Your task to perform on an android device: turn off location history Image 0: 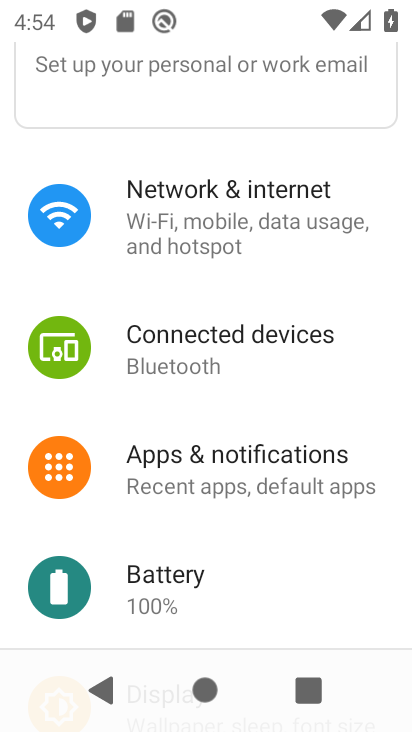
Step 0: drag from (210, 559) to (104, 102)
Your task to perform on an android device: turn off location history Image 1: 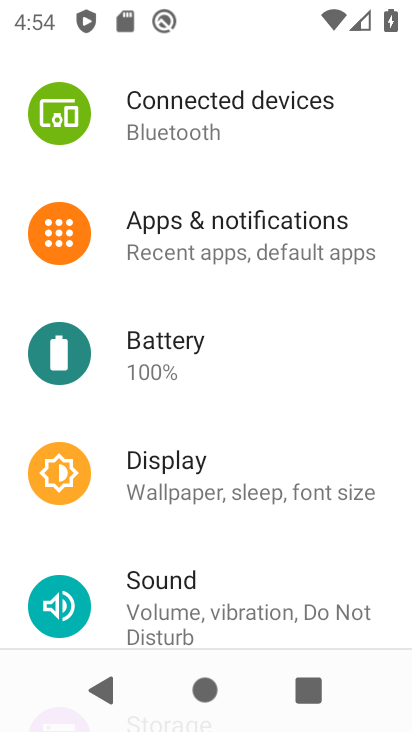
Step 1: drag from (241, 534) to (182, 217)
Your task to perform on an android device: turn off location history Image 2: 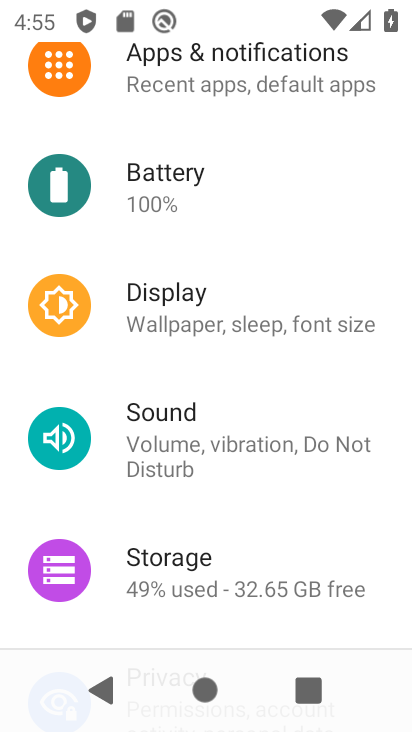
Step 2: drag from (261, 508) to (241, 150)
Your task to perform on an android device: turn off location history Image 3: 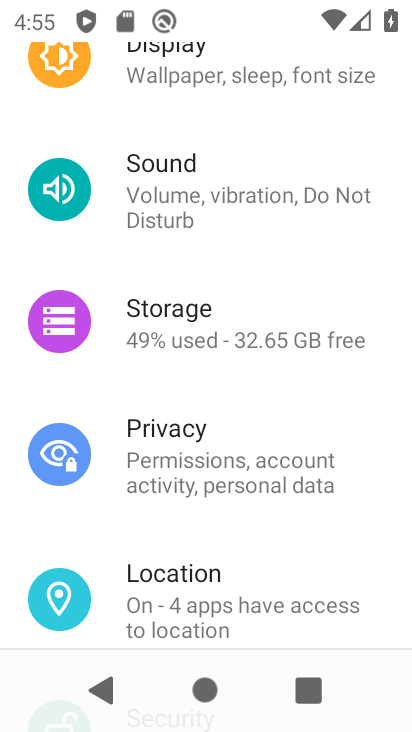
Step 3: drag from (270, 530) to (259, 267)
Your task to perform on an android device: turn off location history Image 4: 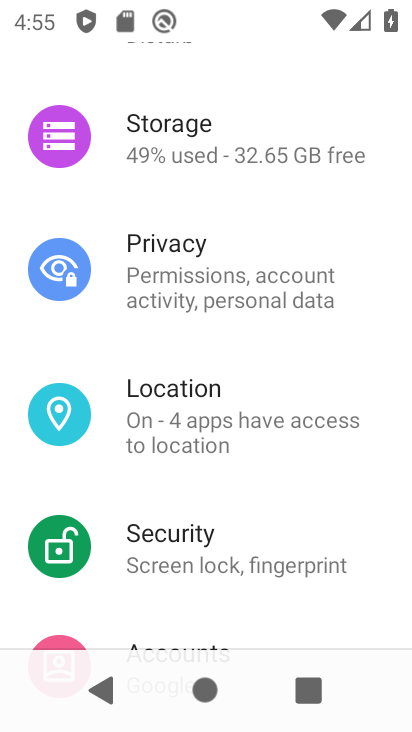
Step 4: click (193, 454)
Your task to perform on an android device: turn off location history Image 5: 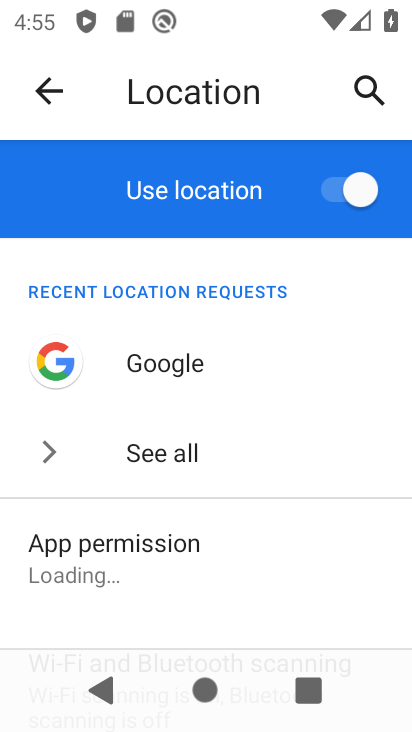
Step 5: drag from (269, 491) to (225, 214)
Your task to perform on an android device: turn off location history Image 6: 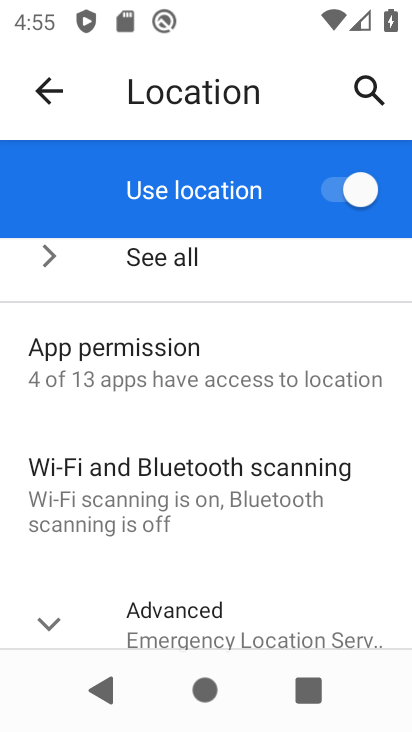
Step 6: drag from (247, 515) to (194, 232)
Your task to perform on an android device: turn off location history Image 7: 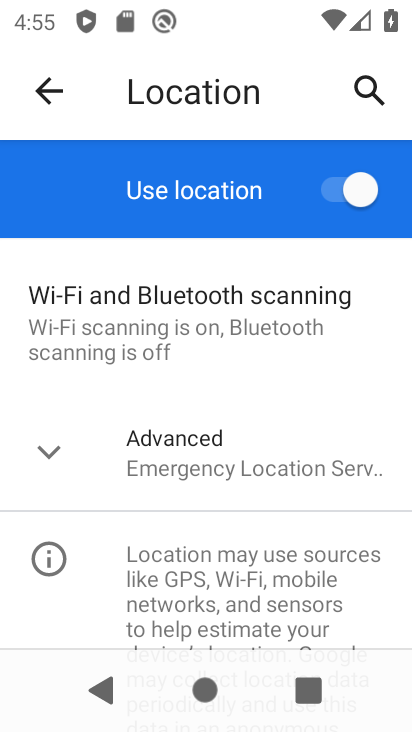
Step 7: click (59, 465)
Your task to perform on an android device: turn off location history Image 8: 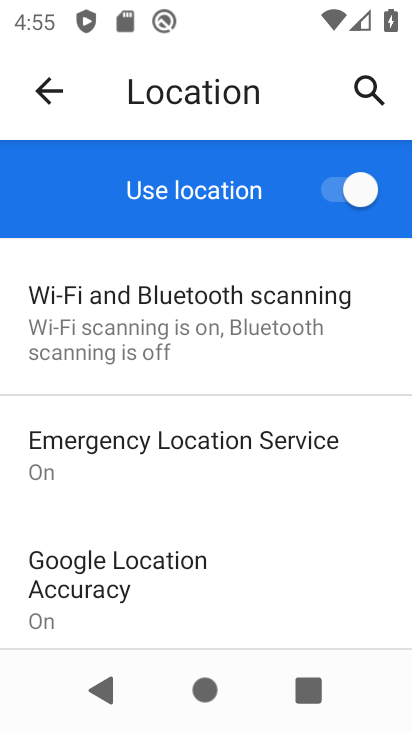
Step 8: drag from (217, 594) to (164, 356)
Your task to perform on an android device: turn off location history Image 9: 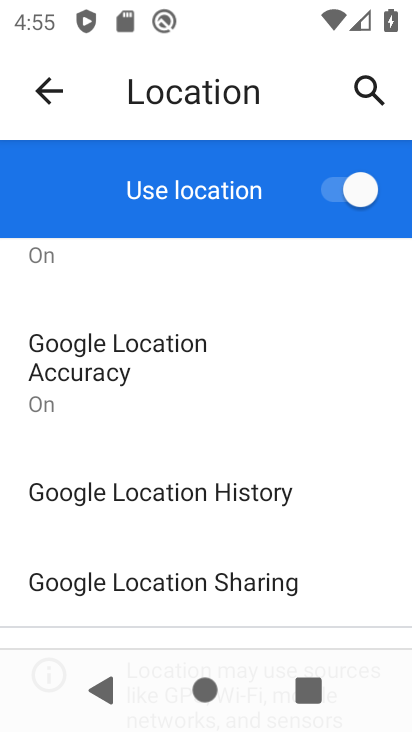
Step 9: drag from (201, 540) to (174, 322)
Your task to perform on an android device: turn off location history Image 10: 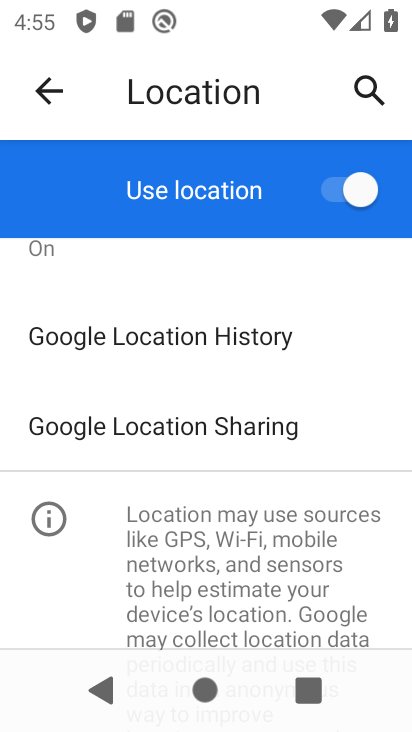
Step 10: click (187, 341)
Your task to perform on an android device: turn off location history Image 11: 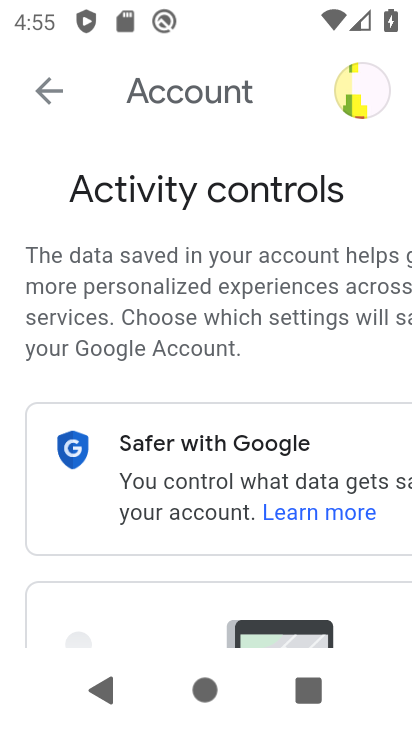
Step 11: drag from (343, 488) to (299, 209)
Your task to perform on an android device: turn off location history Image 12: 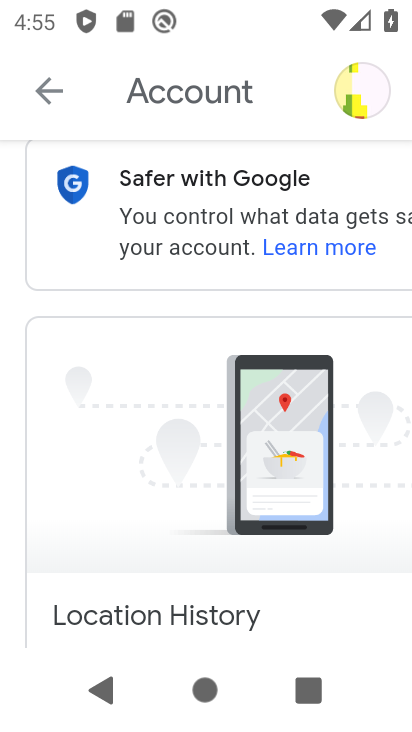
Step 12: drag from (341, 455) to (268, 196)
Your task to perform on an android device: turn off location history Image 13: 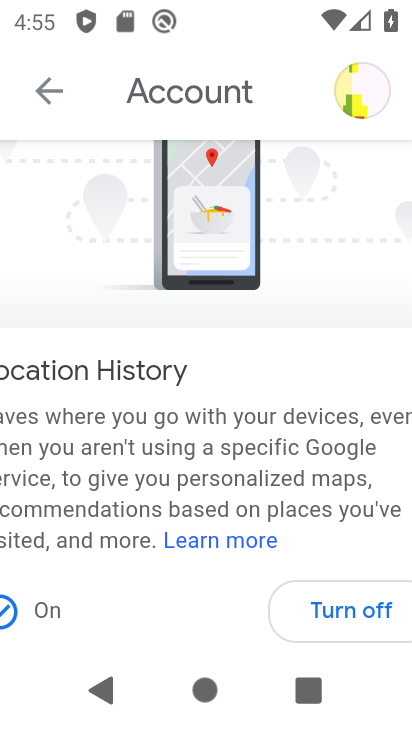
Step 13: click (333, 603)
Your task to perform on an android device: turn off location history Image 14: 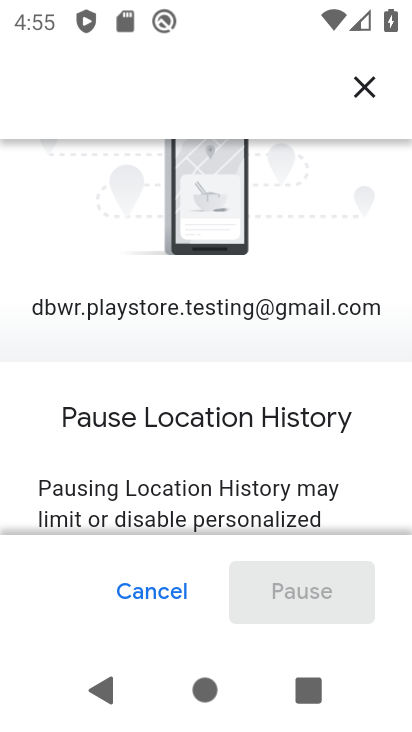
Step 14: drag from (296, 496) to (249, 203)
Your task to perform on an android device: turn off location history Image 15: 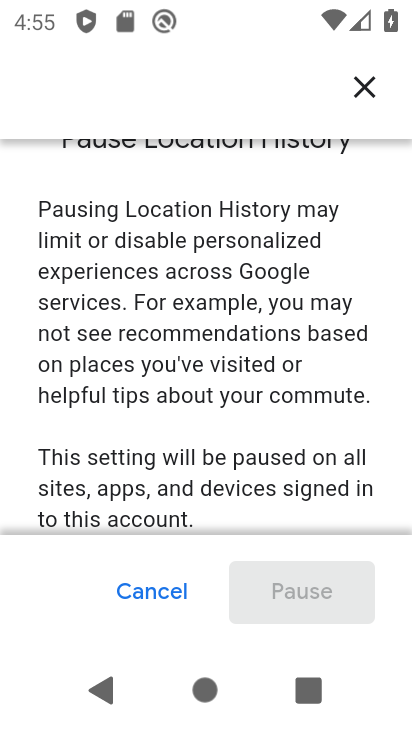
Step 15: drag from (283, 444) to (253, 114)
Your task to perform on an android device: turn off location history Image 16: 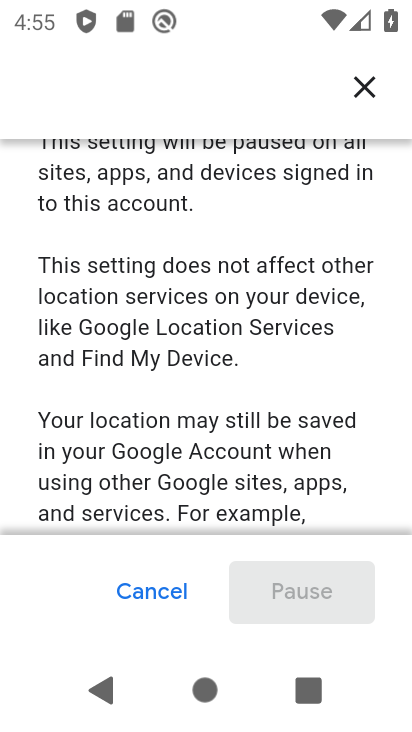
Step 16: drag from (286, 424) to (285, 143)
Your task to perform on an android device: turn off location history Image 17: 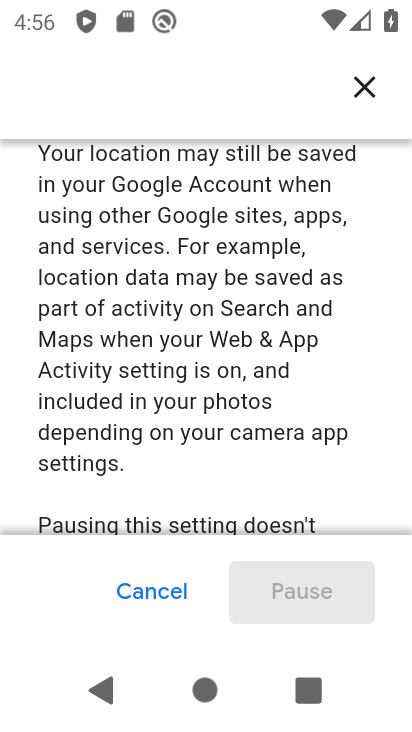
Step 17: drag from (271, 405) to (251, 105)
Your task to perform on an android device: turn off location history Image 18: 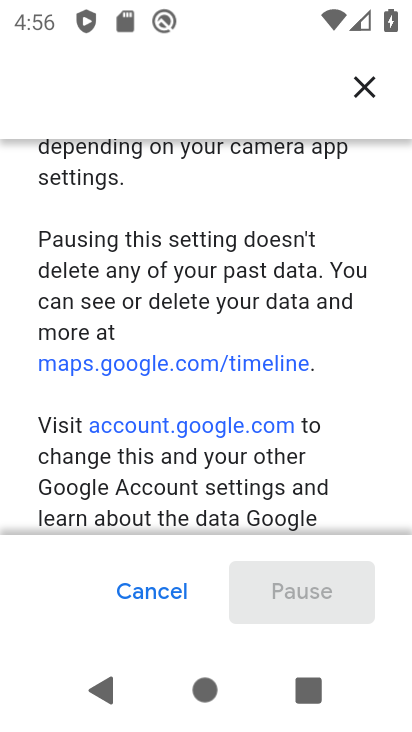
Step 18: drag from (246, 423) to (216, 202)
Your task to perform on an android device: turn off location history Image 19: 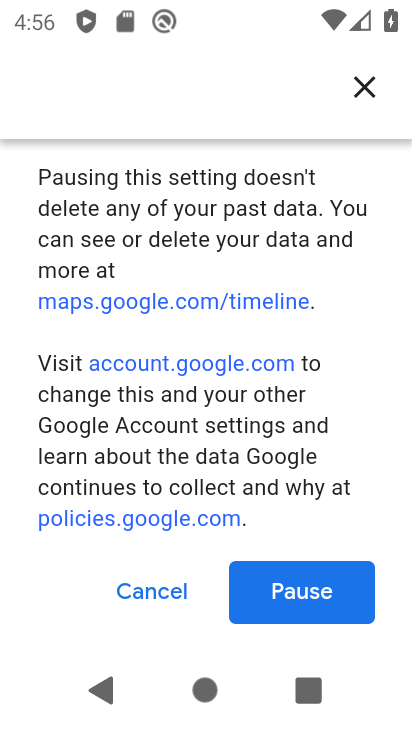
Step 19: click (293, 600)
Your task to perform on an android device: turn off location history Image 20: 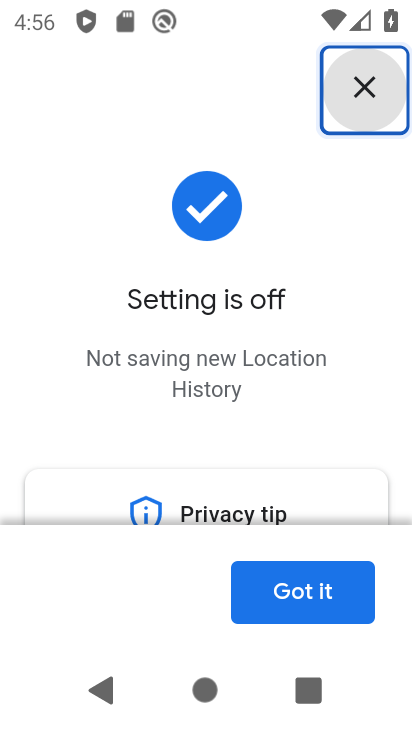
Step 20: click (302, 590)
Your task to perform on an android device: turn off location history Image 21: 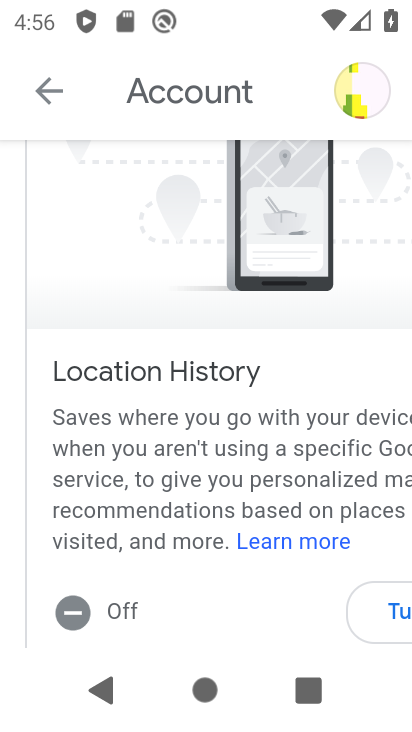
Step 21: task complete